Your task to perform on an android device: toggle translation in the chrome app Image 0: 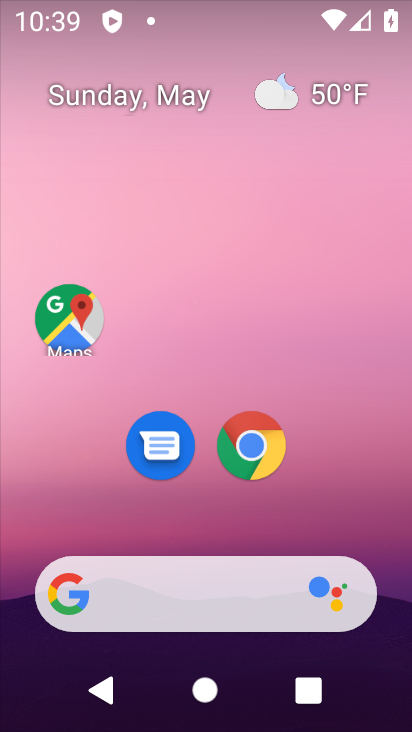
Step 0: click (258, 452)
Your task to perform on an android device: toggle translation in the chrome app Image 1: 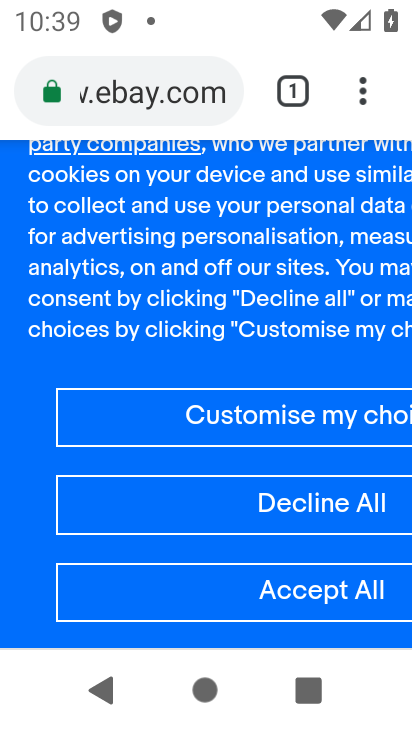
Step 1: click (362, 88)
Your task to perform on an android device: toggle translation in the chrome app Image 2: 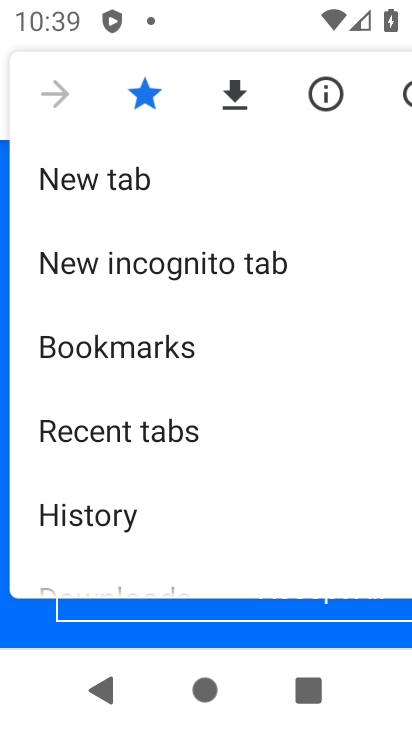
Step 2: drag from (166, 540) to (226, 93)
Your task to perform on an android device: toggle translation in the chrome app Image 3: 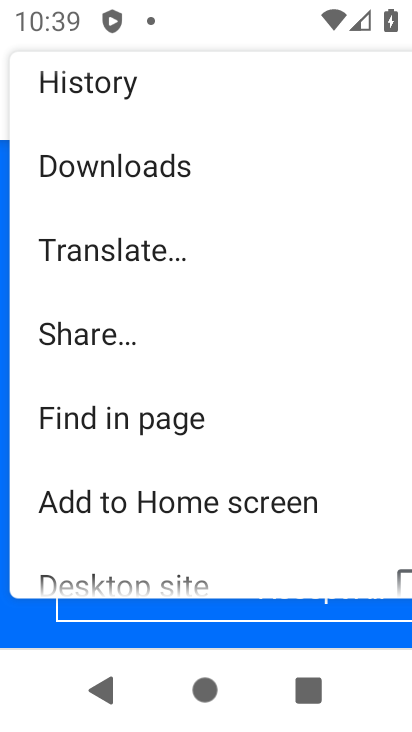
Step 3: drag from (199, 488) to (260, 168)
Your task to perform on an android device: toggle translation in the chrome app Image 4: 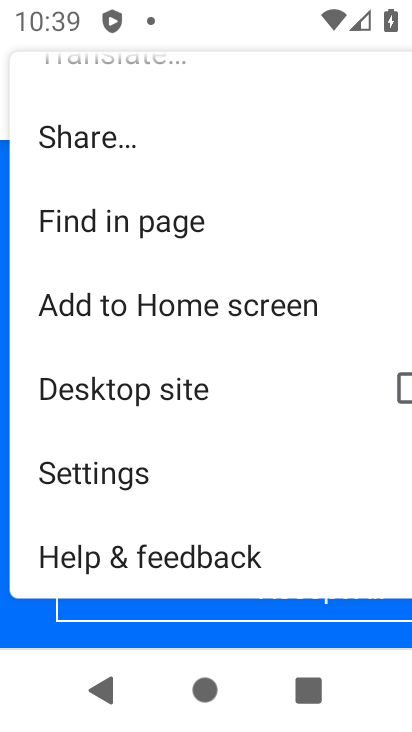
Step 4: click (94, 487)
Your task to perform on an android device: toggle translation in the chrome app Image 5: 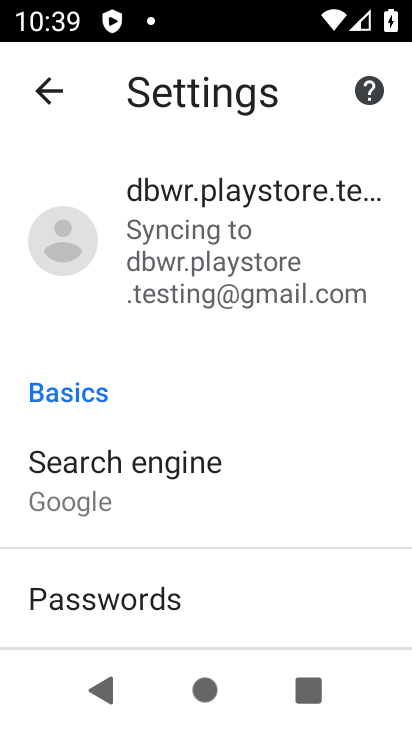
Step 5: drag from (193, 566) to (224, 298)
Your task to perform on an android device: toggle translation in the chrome app Image 6: 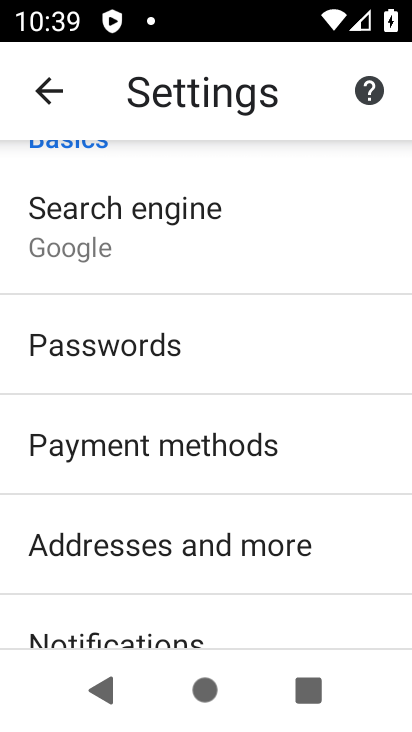
Step 6: drag from (151, 591) to (240, 108)
Your task to perform on an android device: toggle translation in the chrome app Image 7: 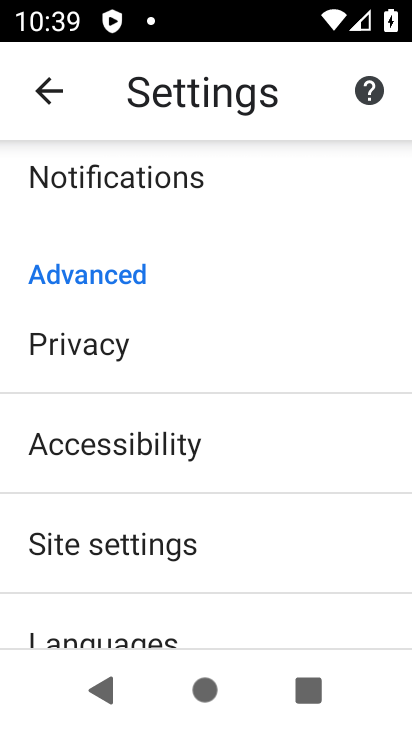
Step 7: drag from (179, 556) to (165, 450)
Your task to perform on an android device: toggle translation in the chrome app Image 8: 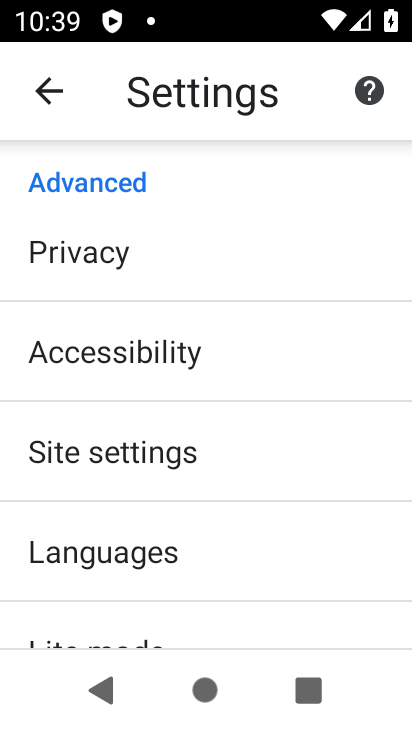
Step 8: click (159, 575)
Your task to perform on an android device: toggle translation in the chrome app Image 9: 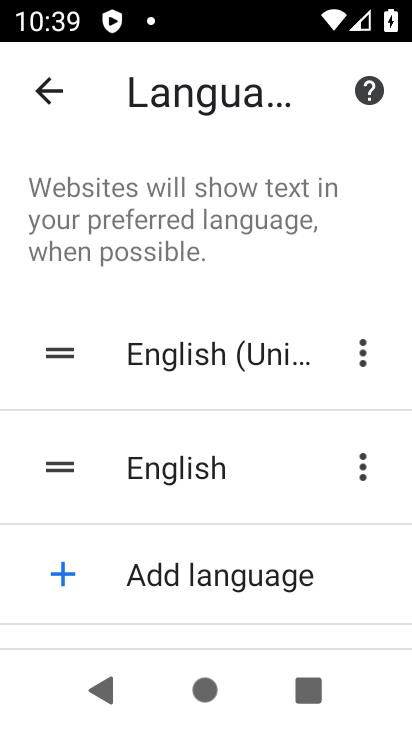
Step 9: drag from (232, 566) to (293, 230)
Your task to perform on an android device: toggle translation in the chrome app Image 10: 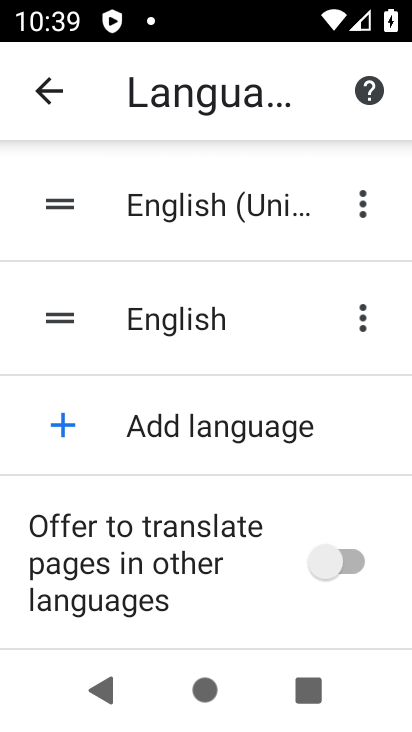
Step 10: click (364, 569)
Your task to perform on an android device: toggle translation in the chrome app Image 11: 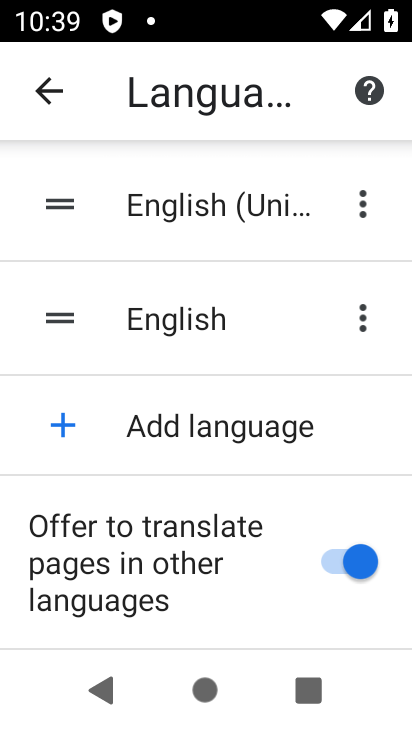
Step 11: task complete